Your task to perform on an android device: toggle notification dots Image 0: 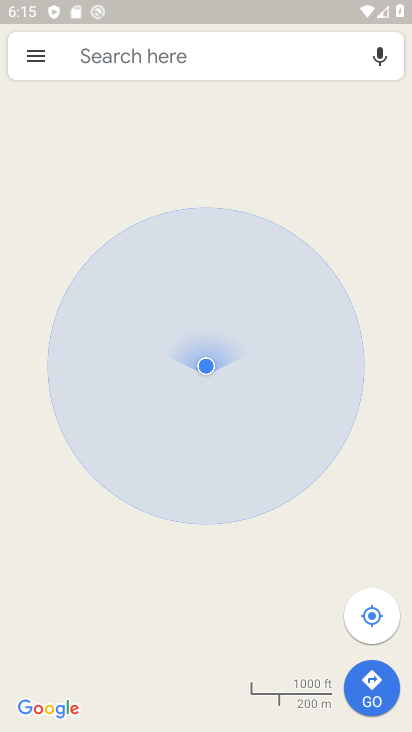
Step 0: press home button
Your task to perform on an android device: toggle notification dots Image 1: 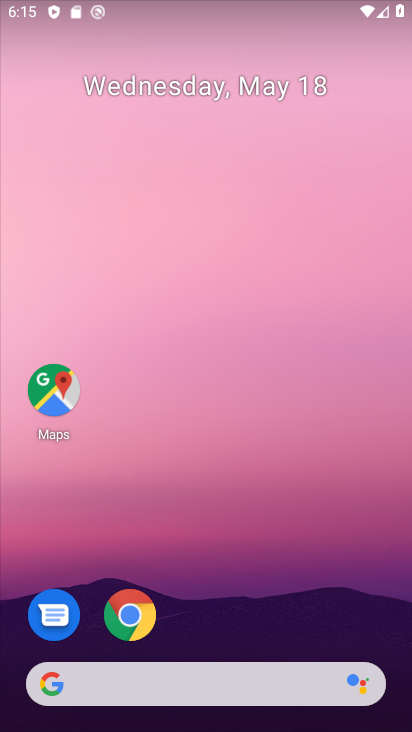
Step 1: drag from (279, 675) to (390, 9)
Your task to perform on an android device: toggle notification dots Image 2: 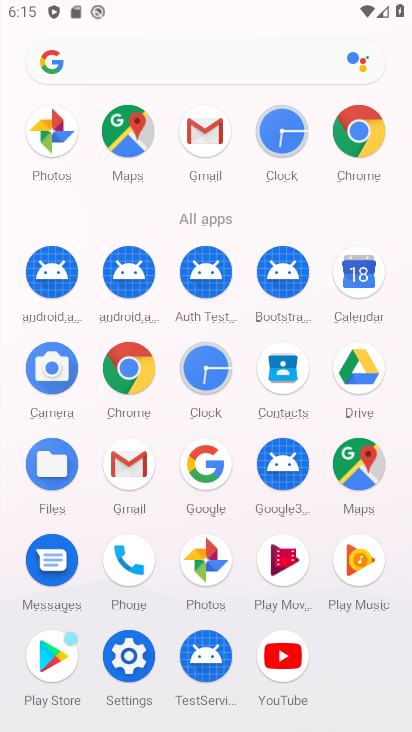
Step 2: click (142, 672)
Your task to perform on an android device: toggle notification dots Image 3: 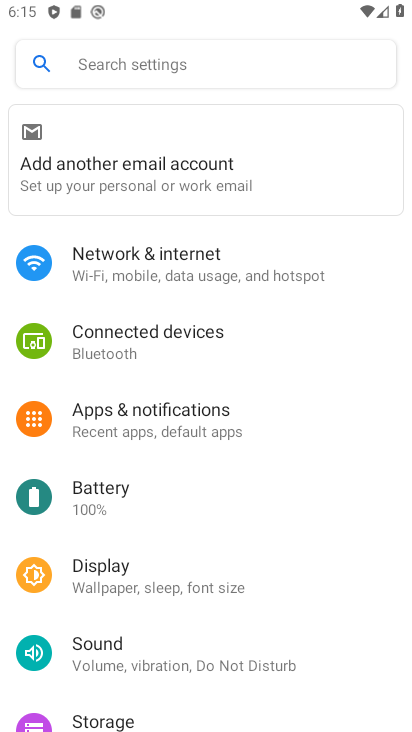
Step 3: click (206, 411)
Your task to perform on an android device: toggle notification dots Image 4: 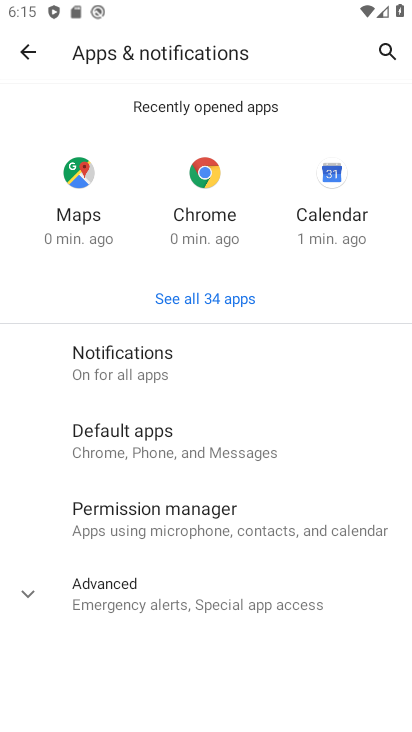
Step 4: click (167, 355)
Your task to perform on an android device: toggle notification dots Image 5: 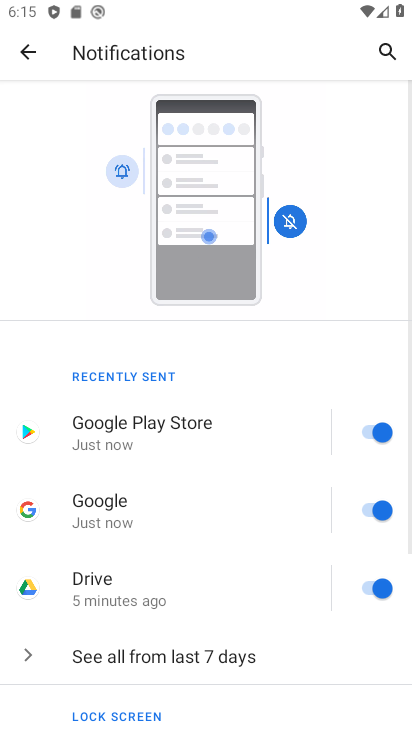
Step 5: drag from (200, 657) to (233, 23)
Your task to perform on an android device: toggle notification dots Image 6: 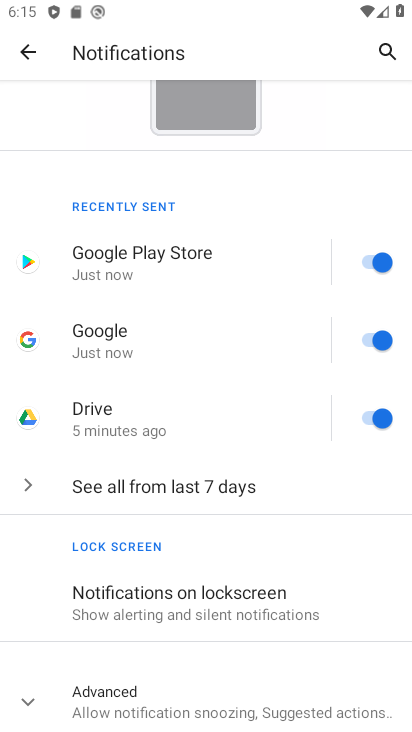
Step 6: click (128, 696)
Your task to perform on an android device: toggle notification dots Image 7: 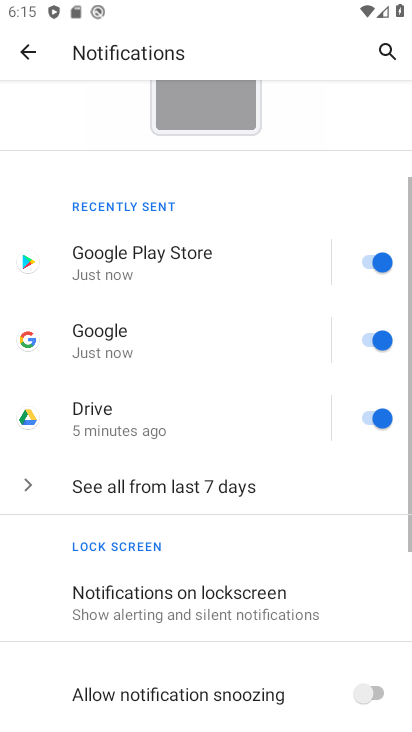
Step 7: drag from (159, 701) to (269, 94)
Your task to perform on an android device: toggle notification dots Image 8: 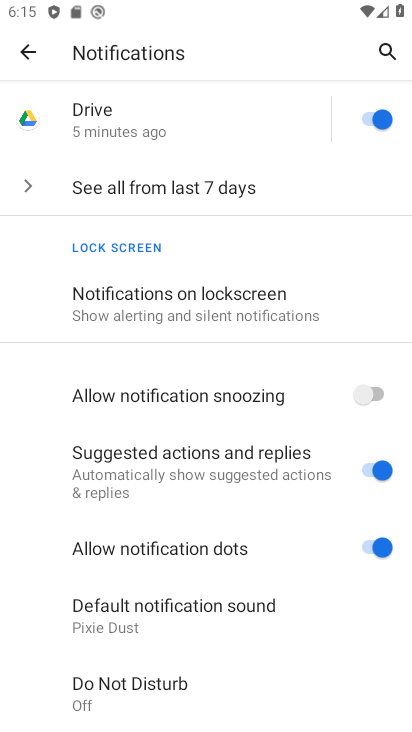
Step 8: click (379, 548)
Your task to perform on an android device: toggle notification dots Image 9: 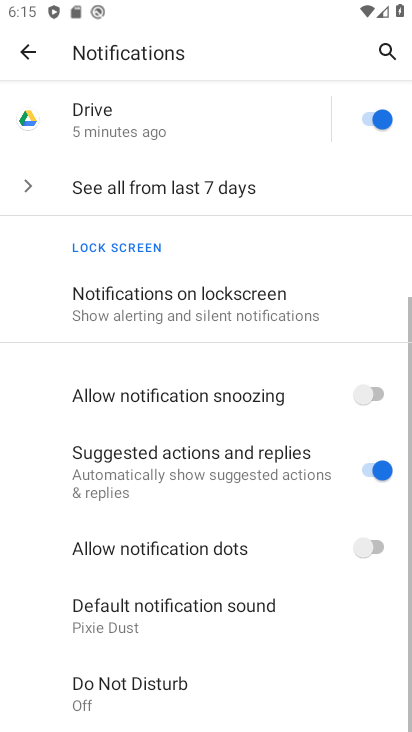
Step 9: task complete